Your task to perform on an android device: turn on translation in the chrome app Image 0: 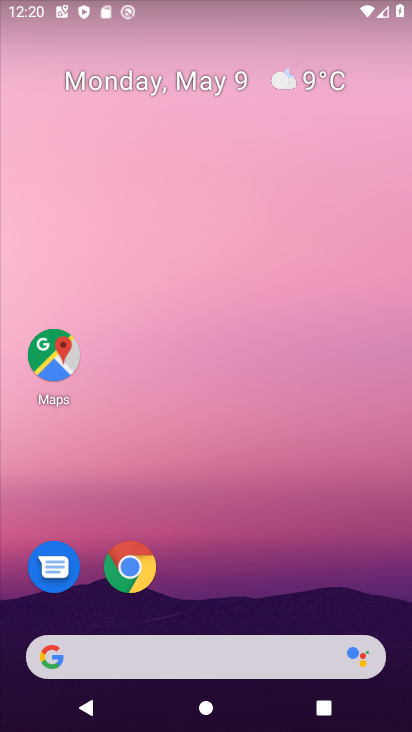
Step 0: drag from (328, 675) to (278, 238)
Your task to perform on an android device: turn on translation in the chrome app Image 1: 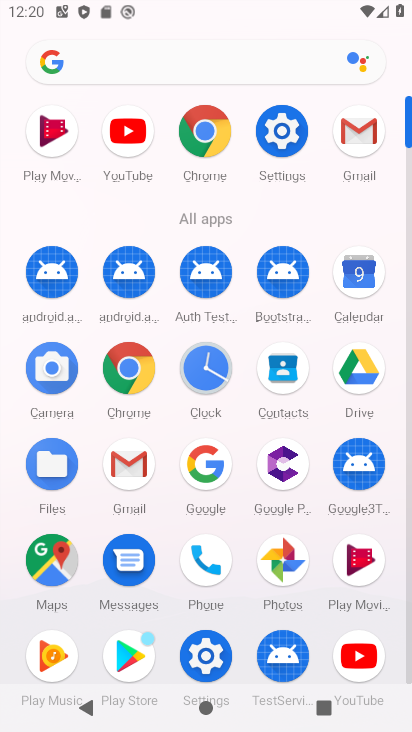
Step 1: click (215, 135)
Your task to perform on an android device: turn on translation in the chrome app Image 2: 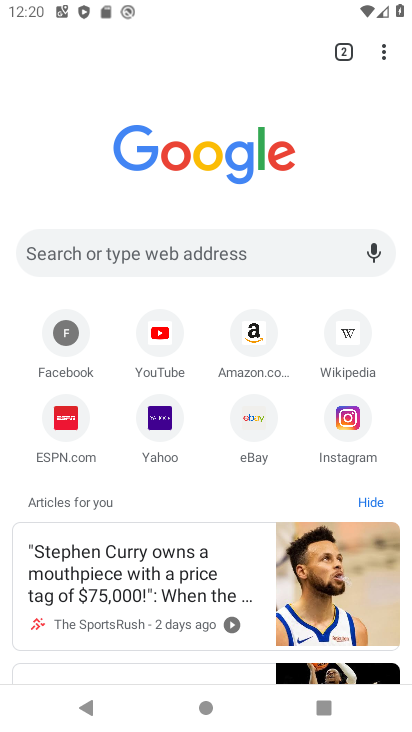
Step 2: click (380, 67)
Your task to perform on an android device: turn on translation in the chrome app Image 3: 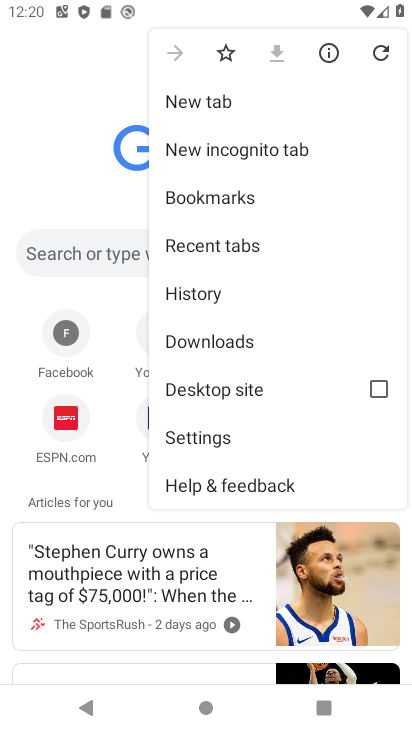
Step 3: click (202, 429)
Your task to perform on an android device: turn on translation in the chrome app Image 4: 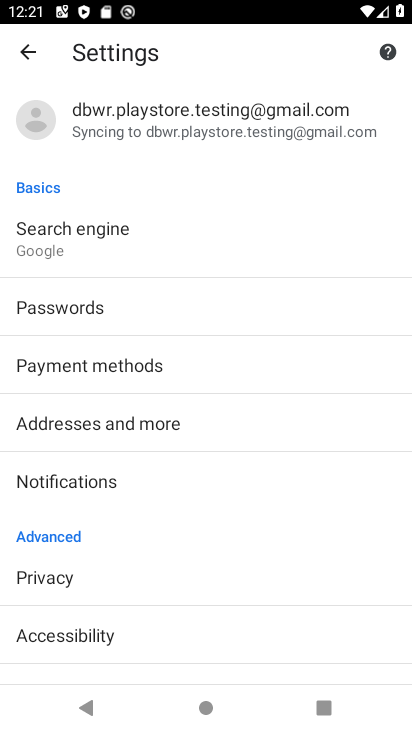
Step 4: drag from (122, 534) to (110, 317)
Your task to perform on an android device: turn on translation in the chrome app Image 5: 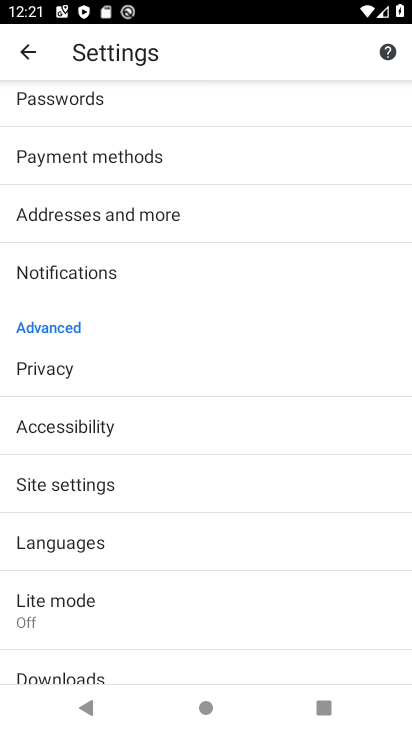
Step 5: click (88, 545)
Your task to perform on an android device: turn on translation in the chrome app Image 6: 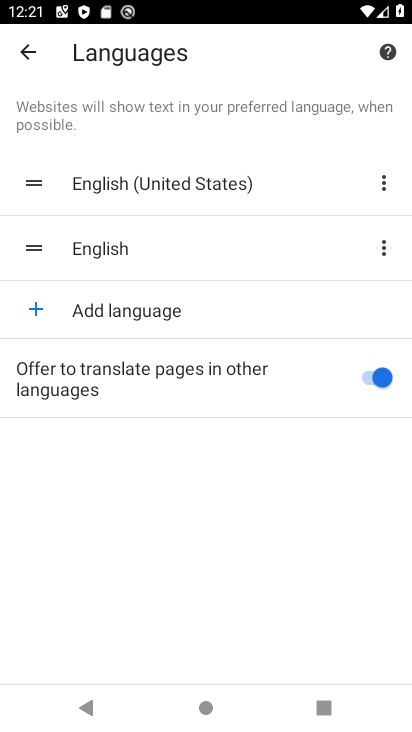
Step 6: click (343, 390)
Your task to perform on an android device: turn on translation in the chrome app Image 7: 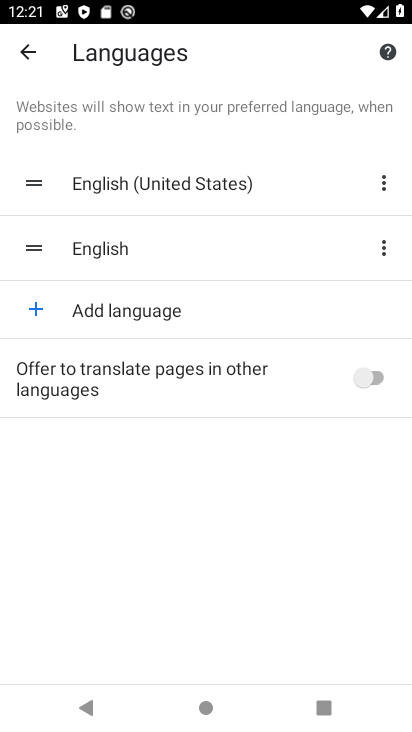
Step 7: click (343, 390)
Your task to perform on an android device: turn on translation in the chrome app Image 8: 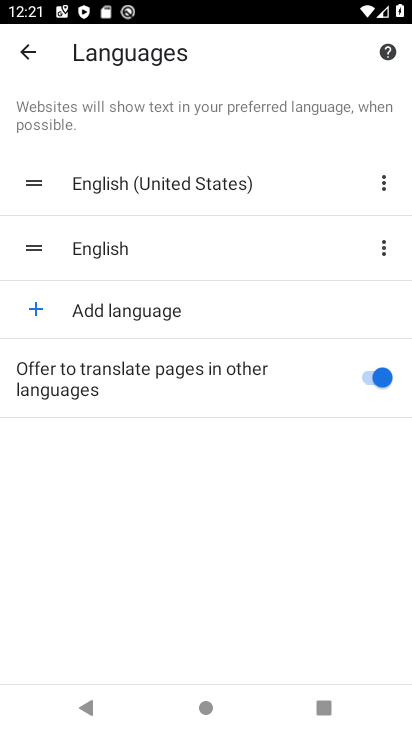
Step 8: task complete